Your task to perform on an android device: open app "DuckDuckGo Privacy Browser" (install if not already installed) and go to login screen Image 0: 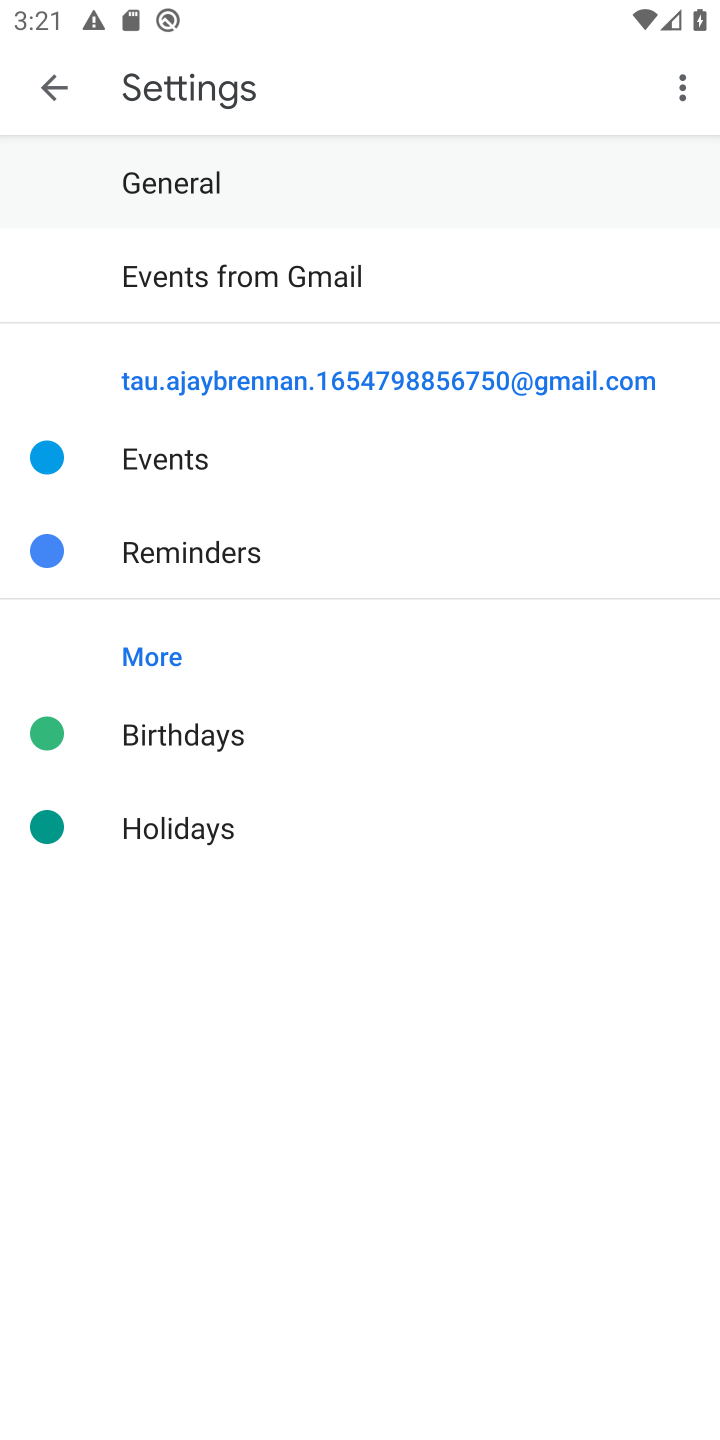
Step 0: press home button
Your task to perform on an android device: open app "DuckDuckGo Privacy Browser" (install if not already installed) and go to login screen Image 1: 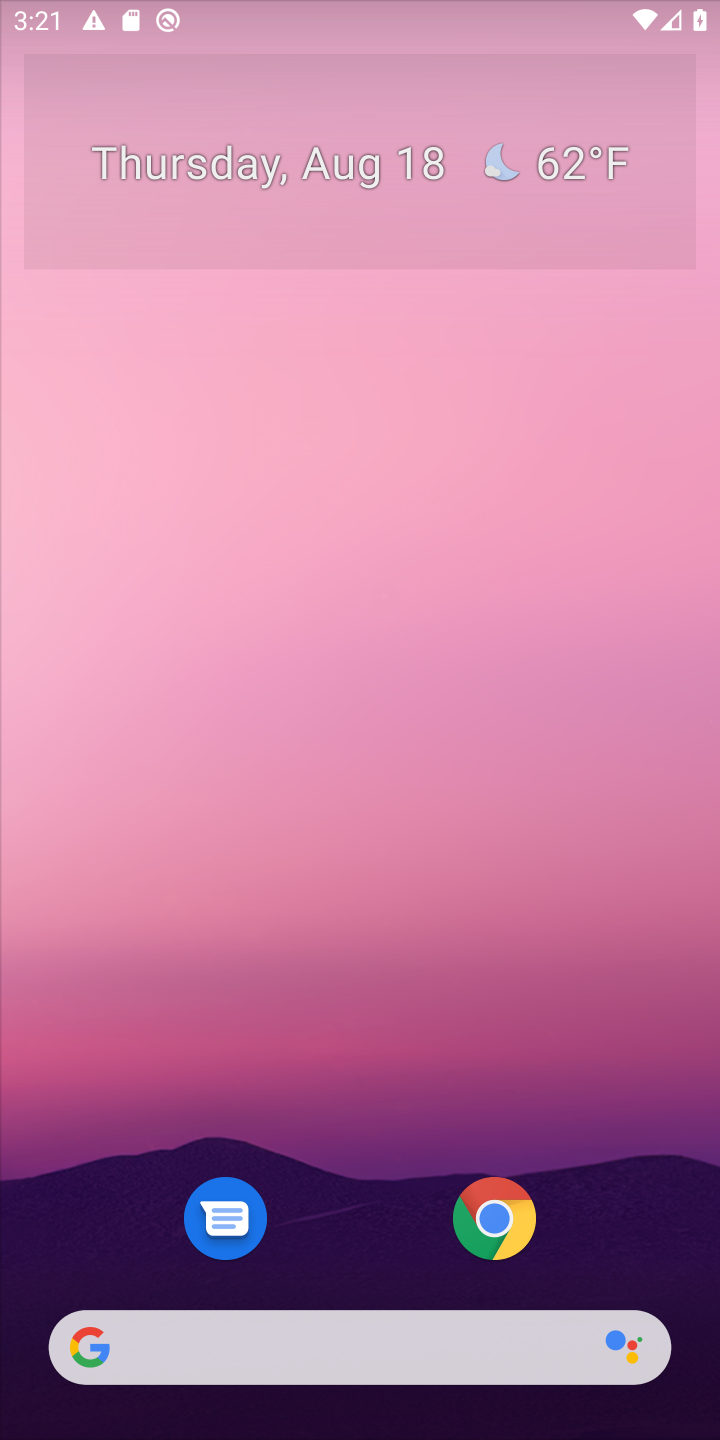
Step 1: drag from (374, 1100) to (475, 280)
Your task to perform on an android device: open app "DuckDuckGo Privacy Browser" (install if not already installed) and go to login screen Image 2: 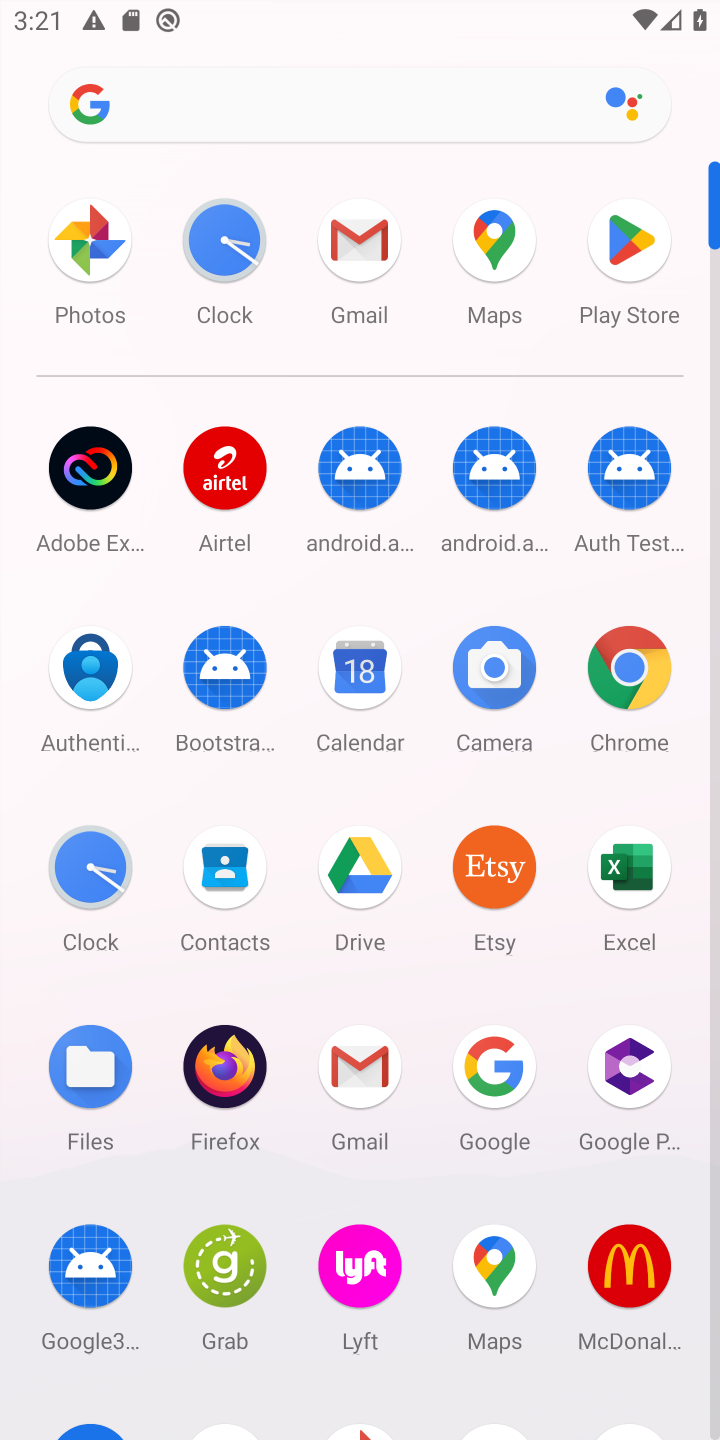
Step 2: click (614, 257)
Your task to perform on an android device: open app "DuckDuckGo Privacy Browser" (install if not already installed) and go to login screen Image 3: 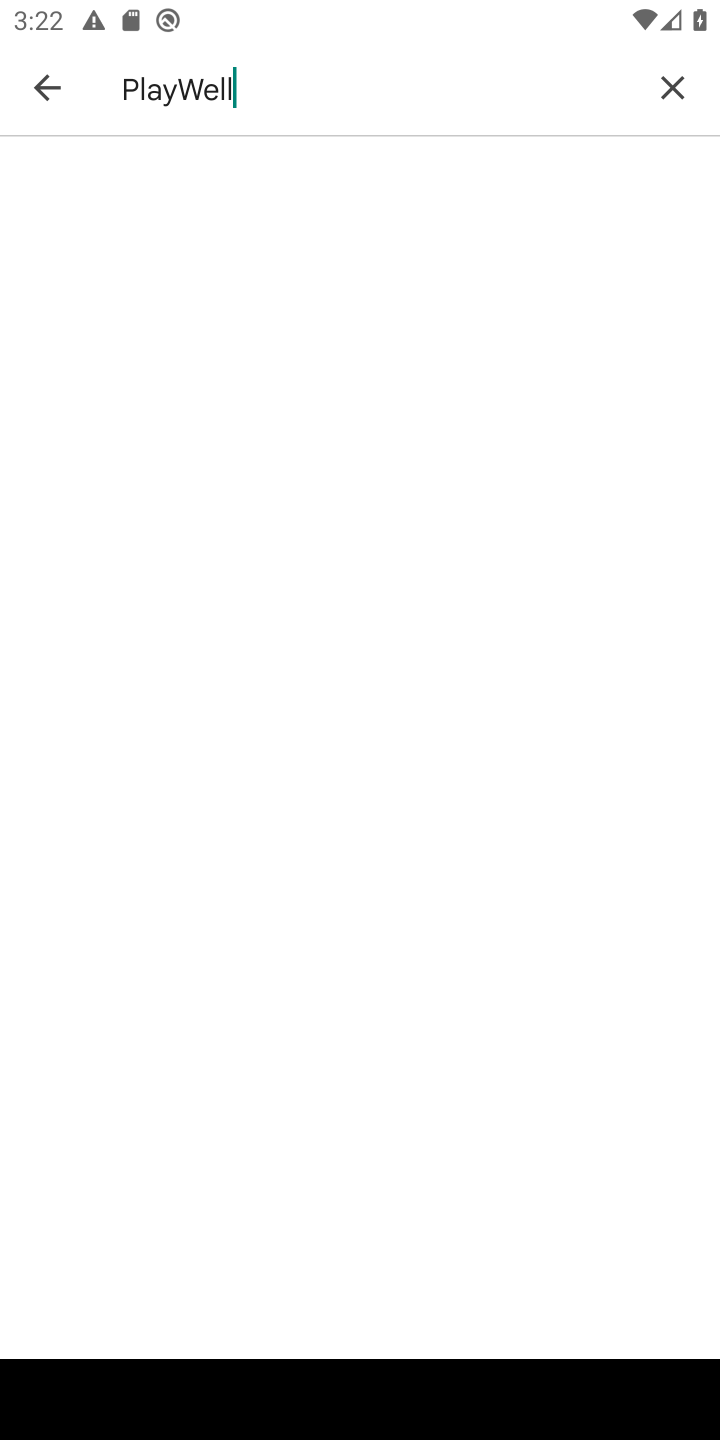
Step 3: click (679, 92)
Your task to perform on an android device: open app "DuckDuckGo Privacy Browser" (install if not already installed) and go to login screen Image 4: 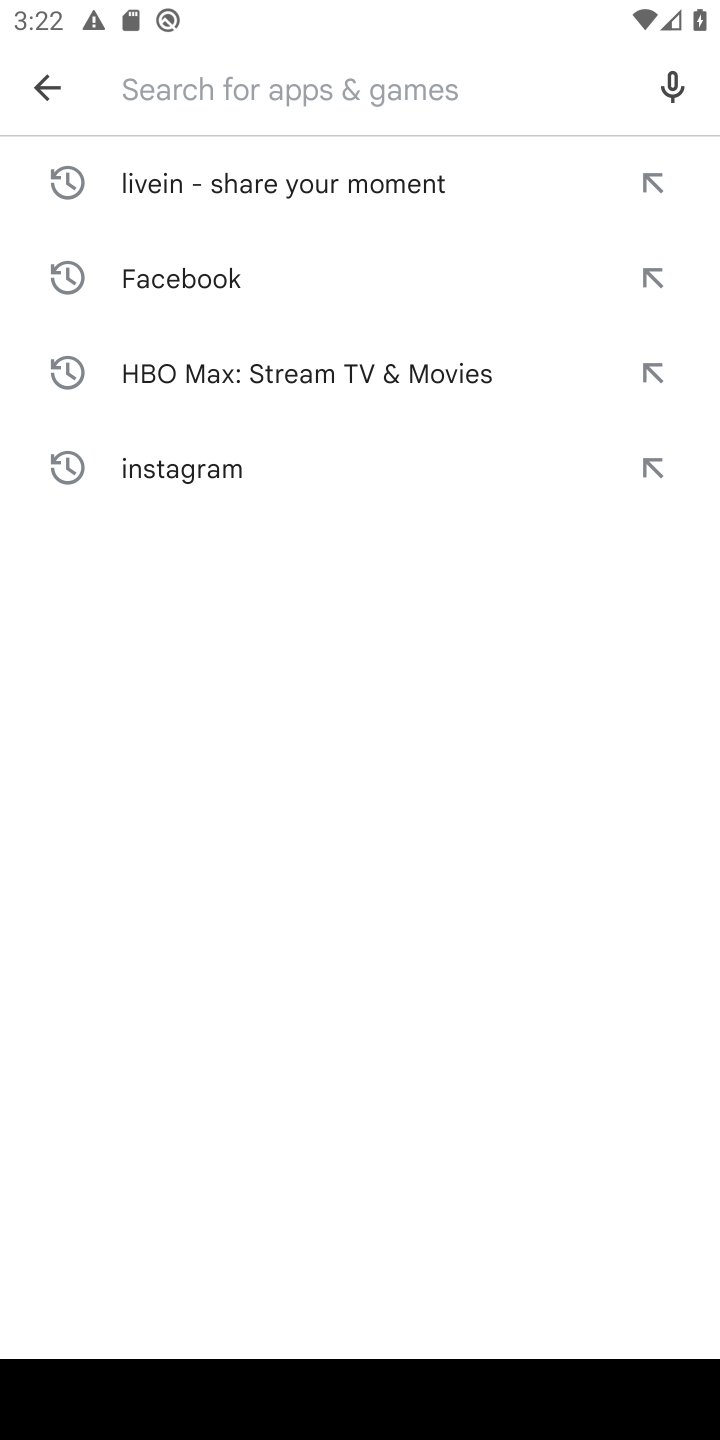
Step 4: click (651, 76)
Your task to perform on an android device: open app "DuckDuckGo Privacy Browser" (install if not already installed) and go to login screen Image 5: 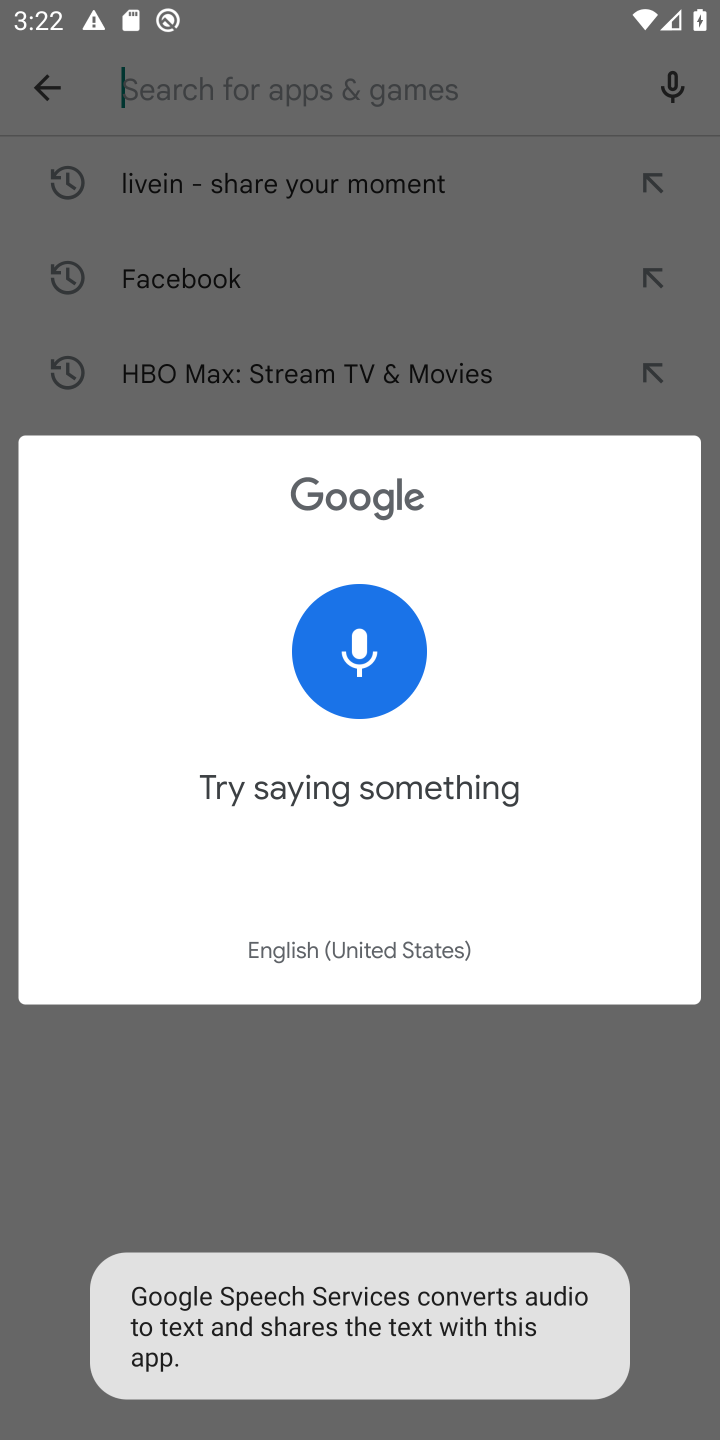
Step 5: click (320, 118)
Your task to perform on an android device: open app "DuckDuckGo Privacy Browser" (install if not already installed) and go to login screen Image 6: 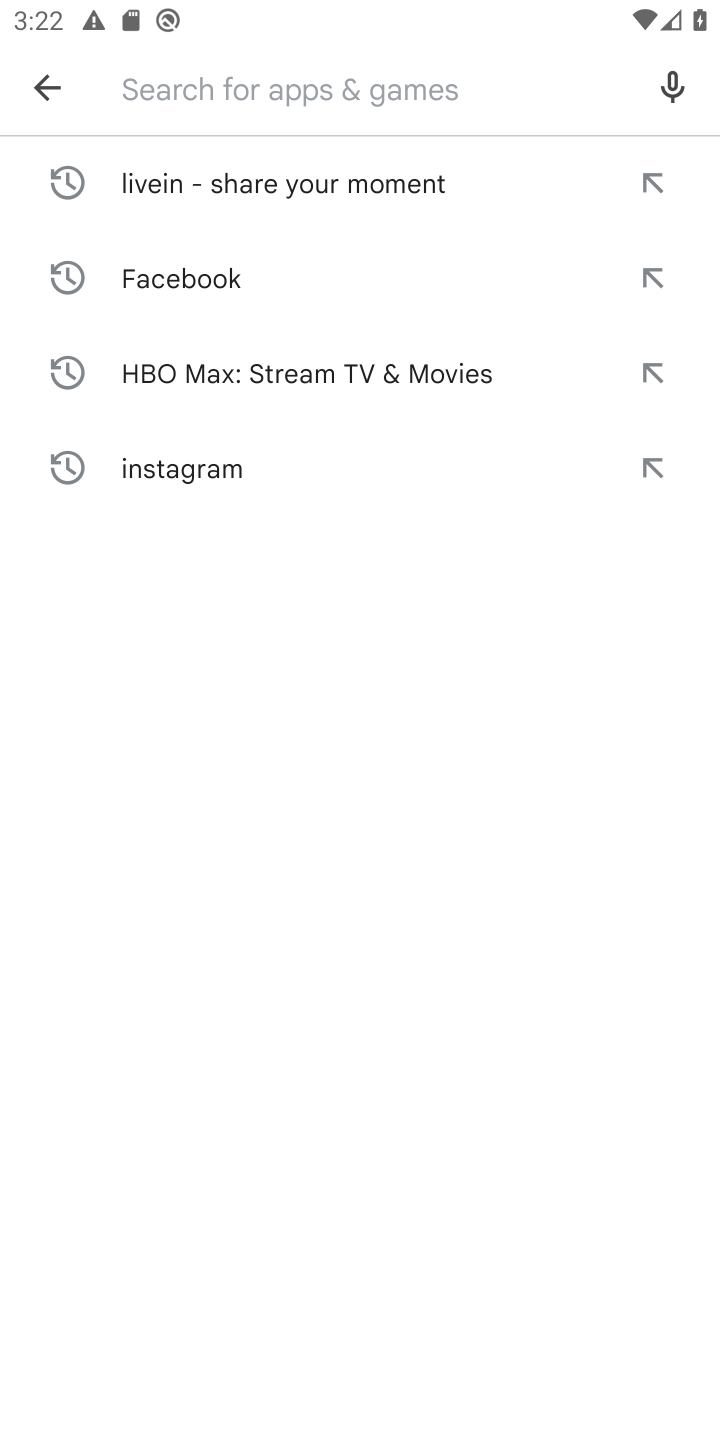
Step 6: type "DuckDuckGo Privacy Browser"
Your task to perform on an android device: open app "DuckDuckGo Privacy Browser" (install if not already installed) and go to login screen Image 7: 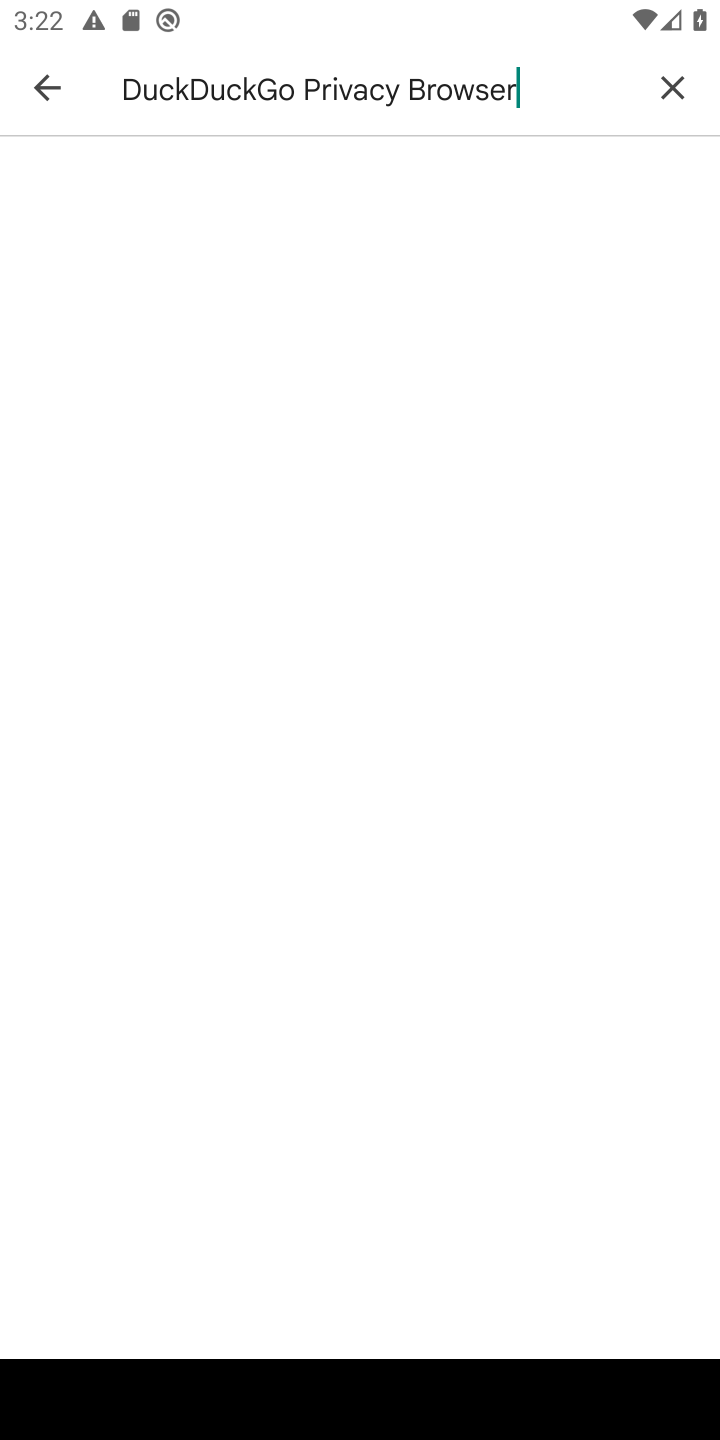
Step 7: task complete